Your task to perform on an android device: choose inbox layout in the gmail app Image 0: 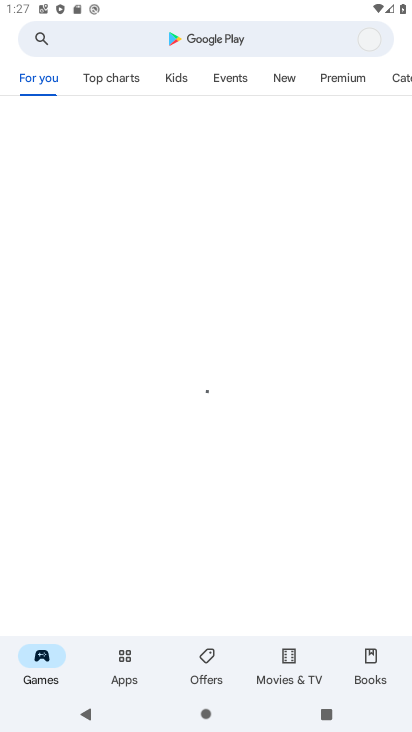
Step 0: press home button
Your task to perform on an android device: choose inbox layout in the gmail app Image 1: 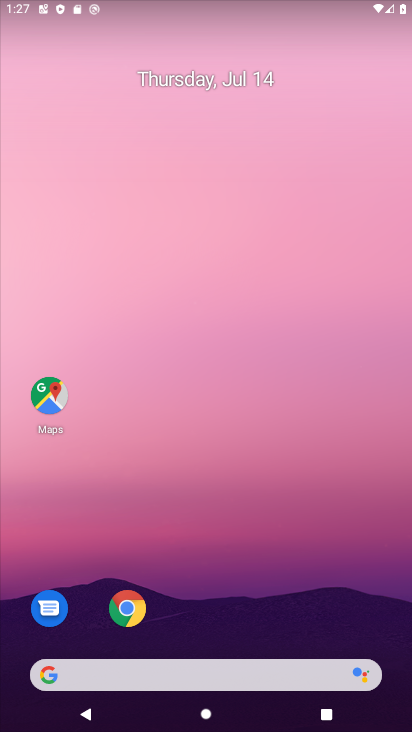
Step 1: drag from (379, 629) to (355, 171)
Your task to perform on an android device: choose inbox layout in the gmail app Image 2: 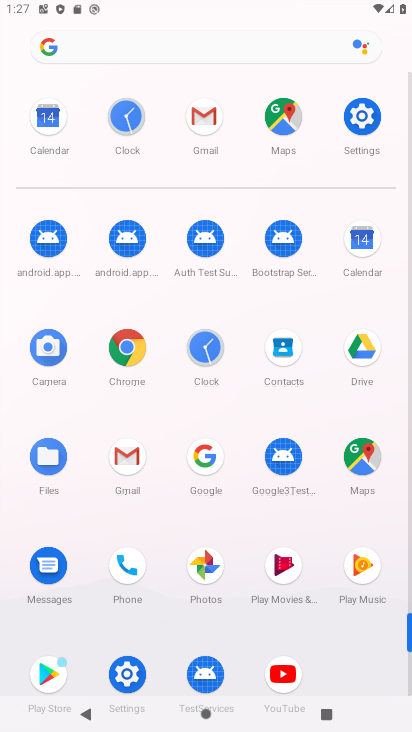
Step 2: click (125, 456)
Your task to perform on an android device: choose inbox layout in the gmail app Image 3: 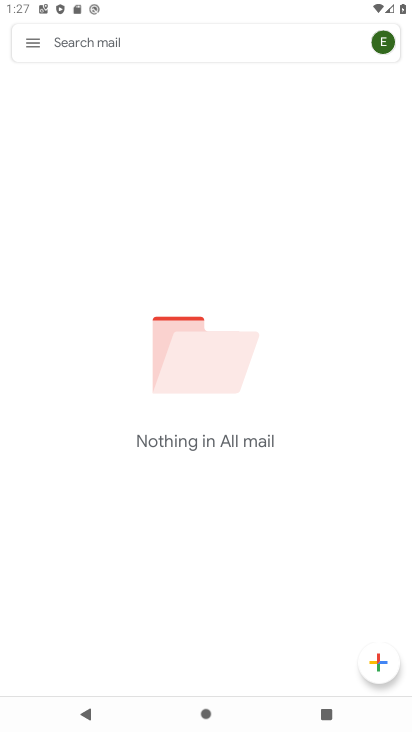
Step 3: click (29, 39)
Your task to perform on an android device: choose inbox layout in the gmail app Image 4: 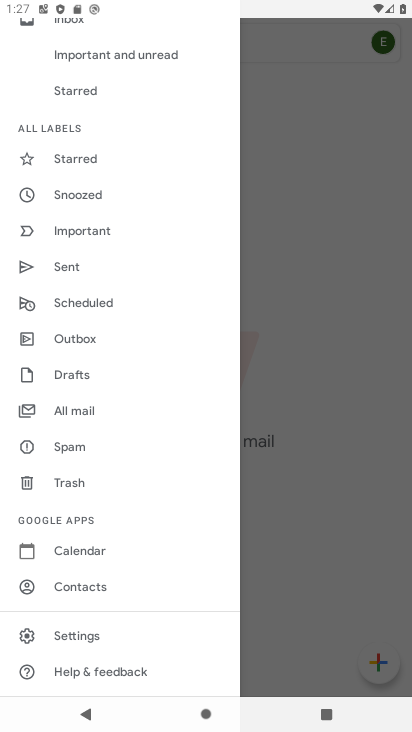
Step 4: click (71, 631)
Your task to perform on an android device: choose inbox layout in the gmail app Image 5: 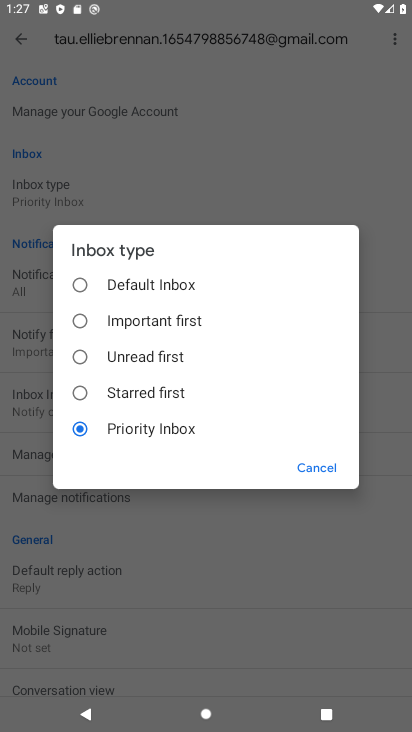
Step 5: click (80, 286)
Your task to perform on an android device: choose inbox layout in the gmail app Image 6: 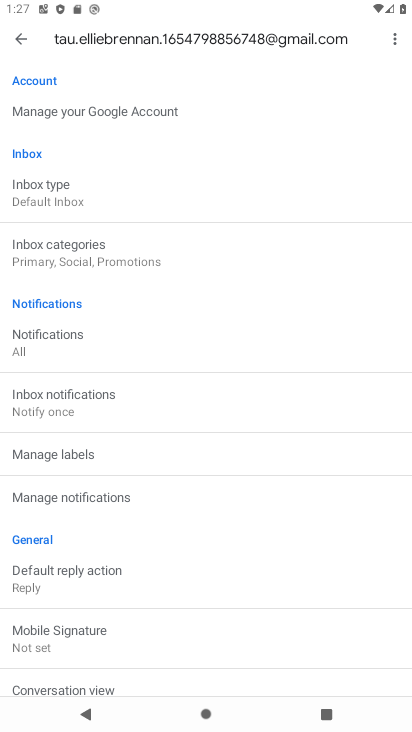
Step 6: task complete